Your task to perform on an android device: turn pop-ups off in chrome Image 0: 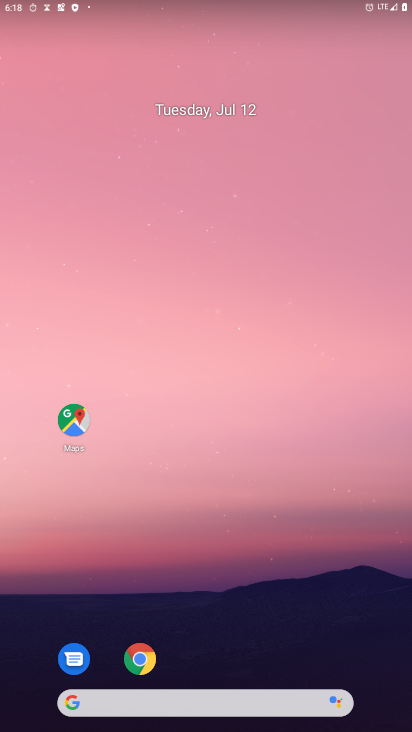
Step 0: drag from (214, 558) to (213, 259)
Your task to perform on an android device: turn pop-ups off in chrome Image 1: 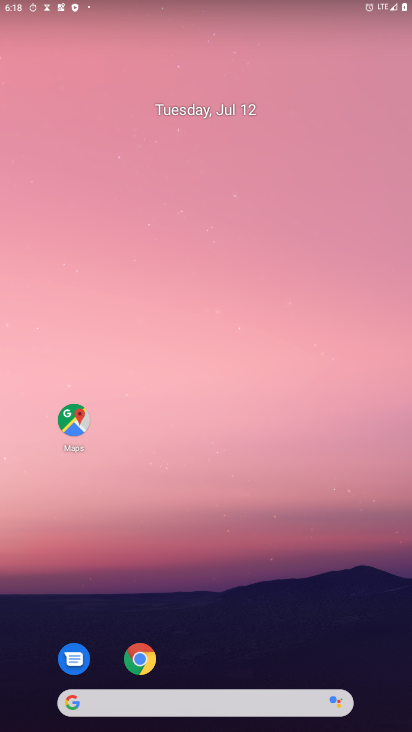
Step 1: click (135, 663)
Your task to perform on an android device: turn pop-ups off in chrome Image 2: 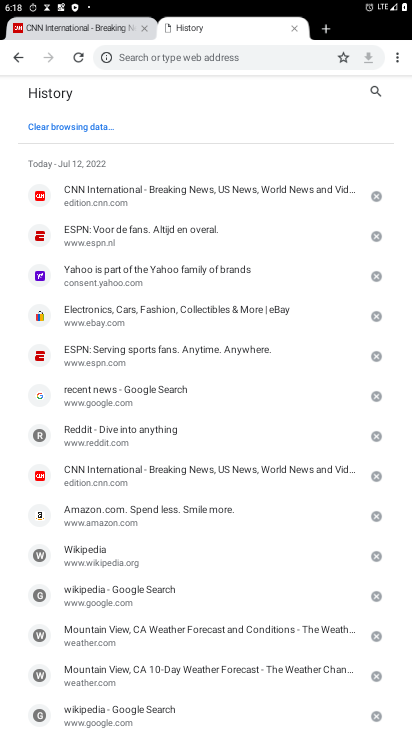
Step 2: click (396, 52)
Your task to perform on an android device: turn pop-ups off in chrome Image 3: 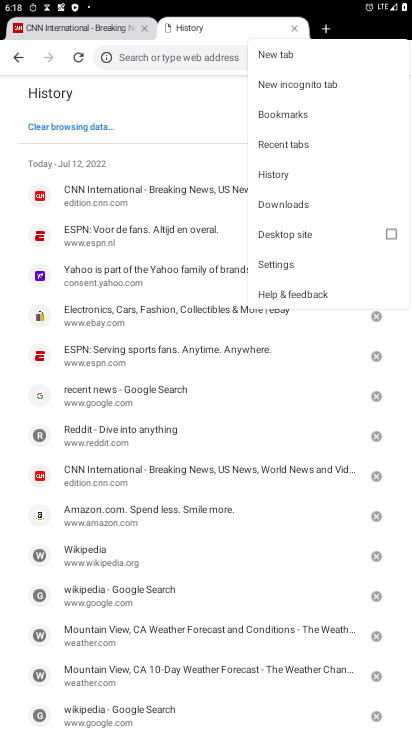
Step 3: click (295, 270)
Your task to perform on an android device: turn pop-ups off in chrome Image 4: 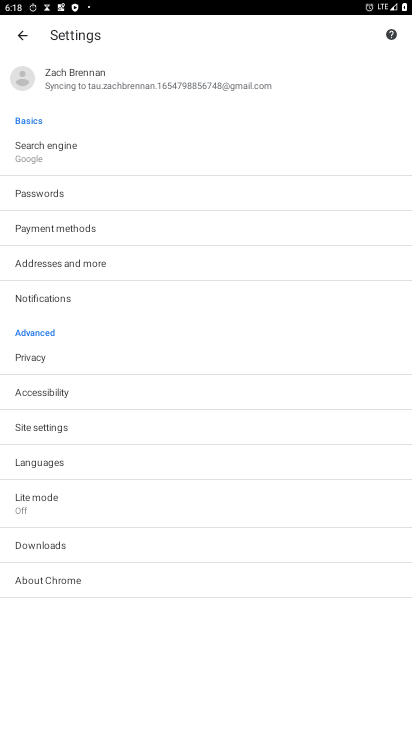
Step 4: click (76, 429)
Your task to perform on an android device: turn pop-ups off in chrome Image 5: 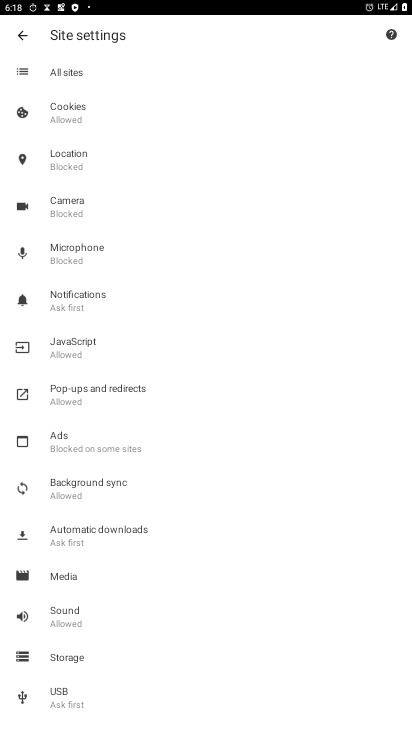
Step 5: click (76, 399)
Your task to perform on an android device: turn pop-ups off in chrome Image 6: 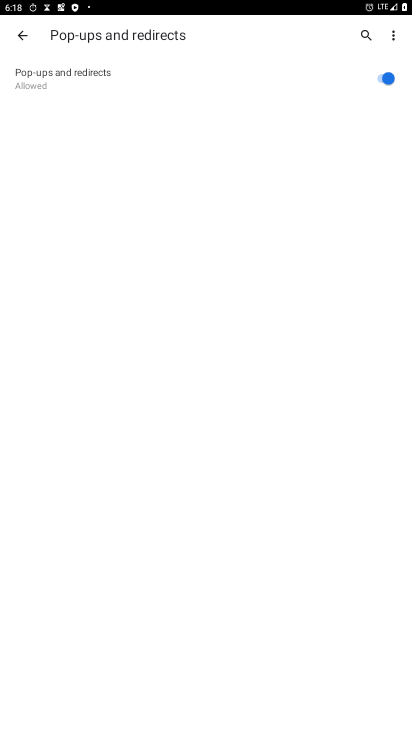
Step 6: click (375, 78)
Your task to perform on an android device: turn pop-ups off in chrome Image 7: 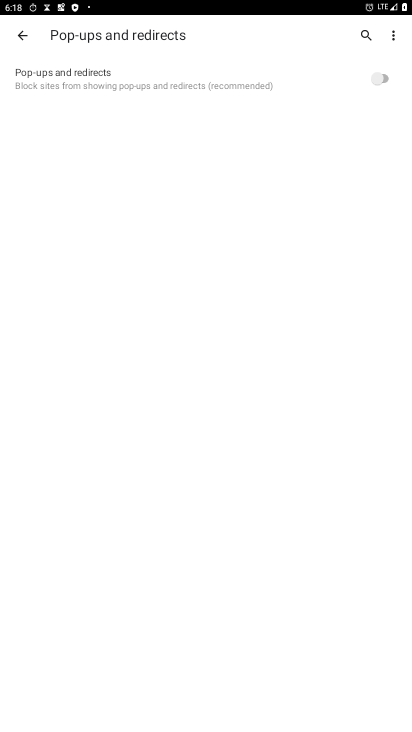
Step 7: task complete